Your task to perform on an android device: manage bookmarks in the chrome app Image 0: 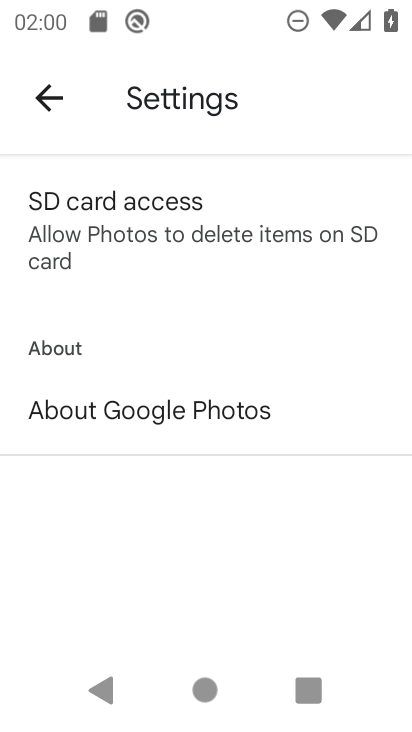
Step 0: press home button
Your task to perform on an android device: manage bookmarks in the chrome app Image 1: 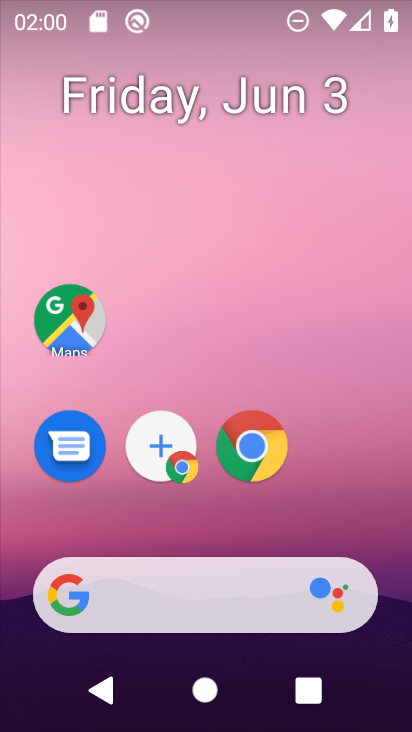
Step 1: click (248, 428)
Your task to perform on an android device: manage bookmarks in the chrome app Image 2: 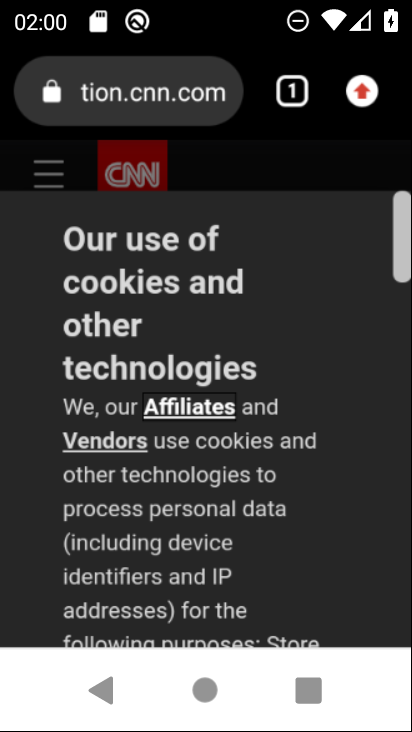
Step 2: click (365, 83)
Your task to perform on an android device: manage bookmarks in the chrome app Image 3: 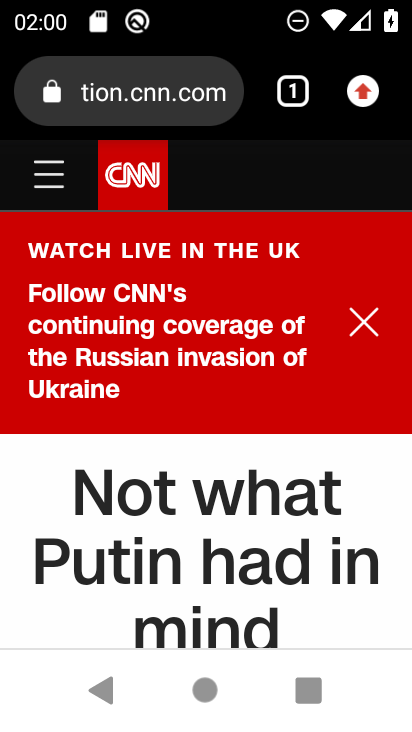
Step 3: click (359, 96)
Your task to perform on an android device: manage bookmarks in the chrome app Image 4: 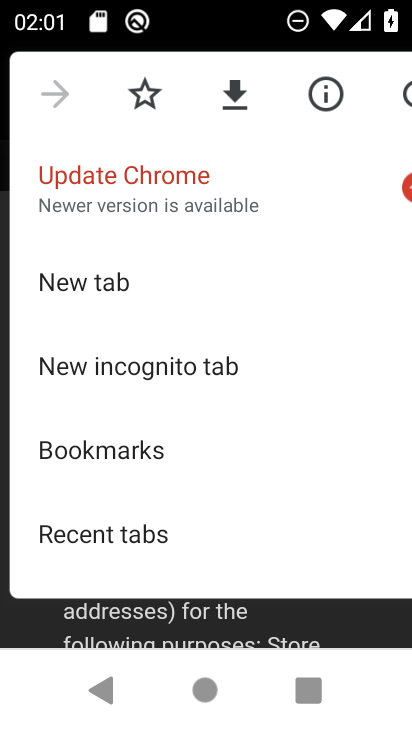
Step 4: click (116, 442)
Your task to perform on an android device: manage bookmarks in the chrome app Image 5: 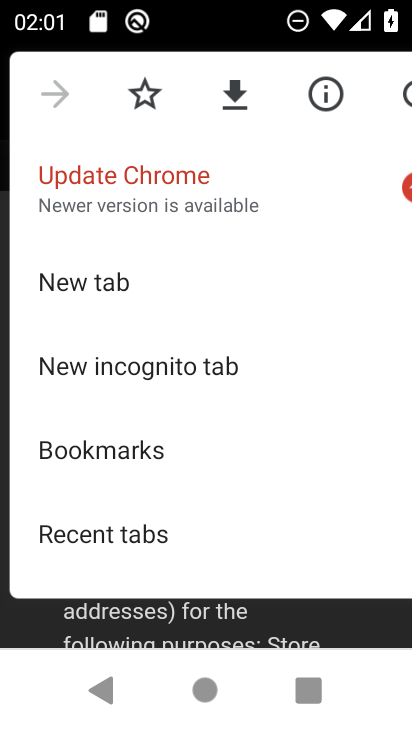
Step 5: click (116, 442)
Your task to perform on an android device: manage bookmarks in the chrome app Image 6: 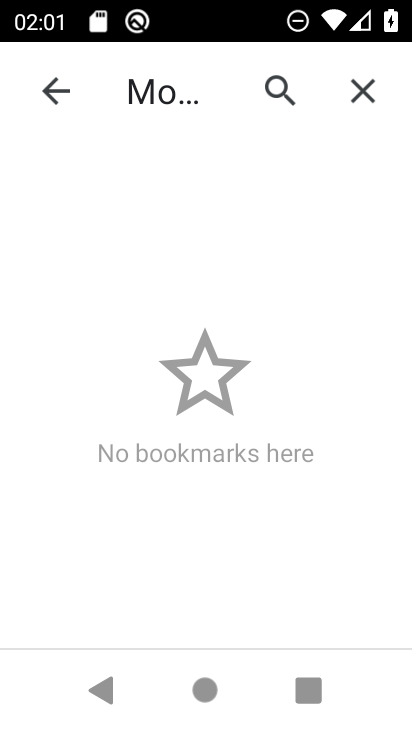
Step 6: task complete